Your task to perform on an android device: Clear the cart on ebay. Search for apple airpods pro on ebay, select the first entry, add it to the cart, then select checkout. Image 0: 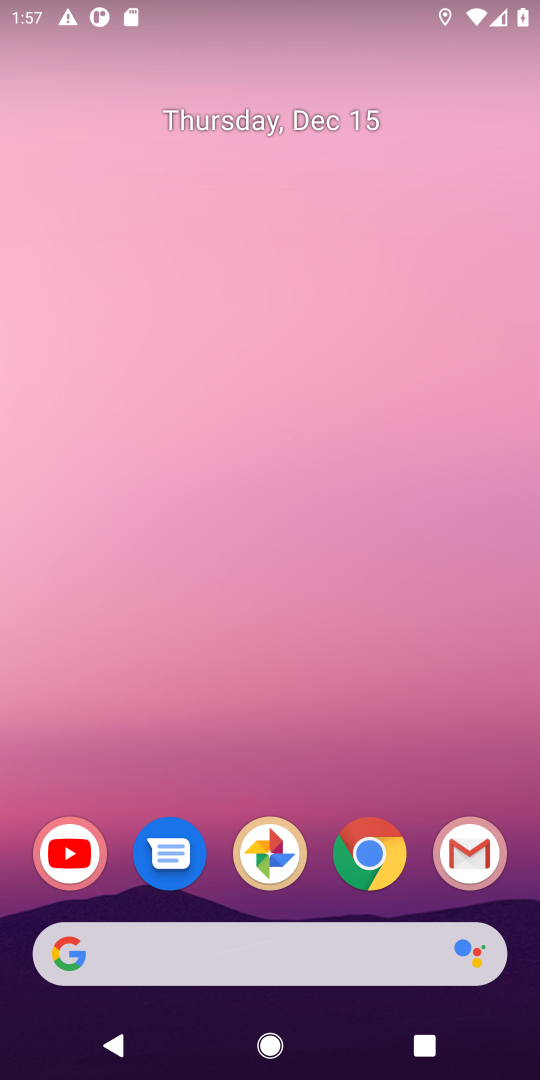
Step 0: drag from (251, 535) to (251, 230)
Your task to perform on an android device: Clear the cart on ebay. Search for apple airpods pro on ebay, select the first entry, add it to the cart, then select checkout. Image 1: 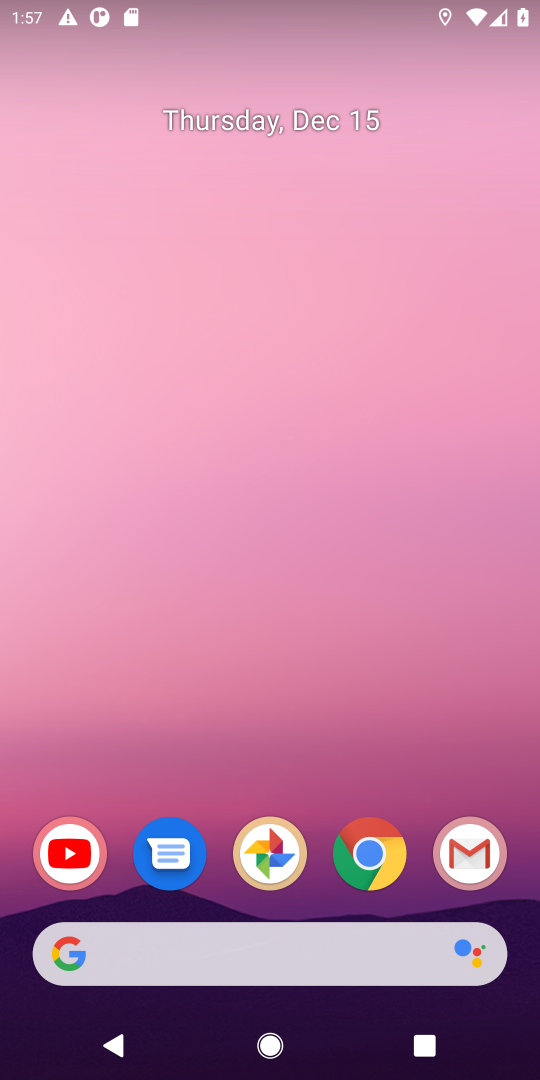
Step 1: drag from (145, 923) to (301, 137)
Your task to perform on an android device: Clear the cart on ebay. Search for apple airpods pro on ebay, select the first entry, add it to the cart, then select checkout. Image 2: 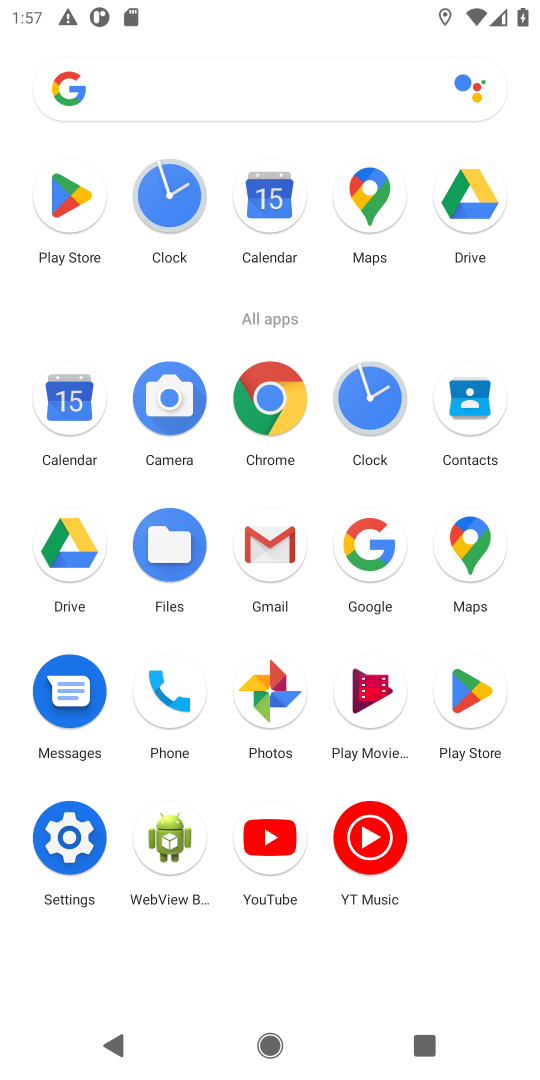
Step 2: click (372, 541)
Your task to perform on an android device: Clear the cart on ebay. Search for apple airpods pro on ebay, select the first entry, add it to the cart, then select checkout. Image 3: 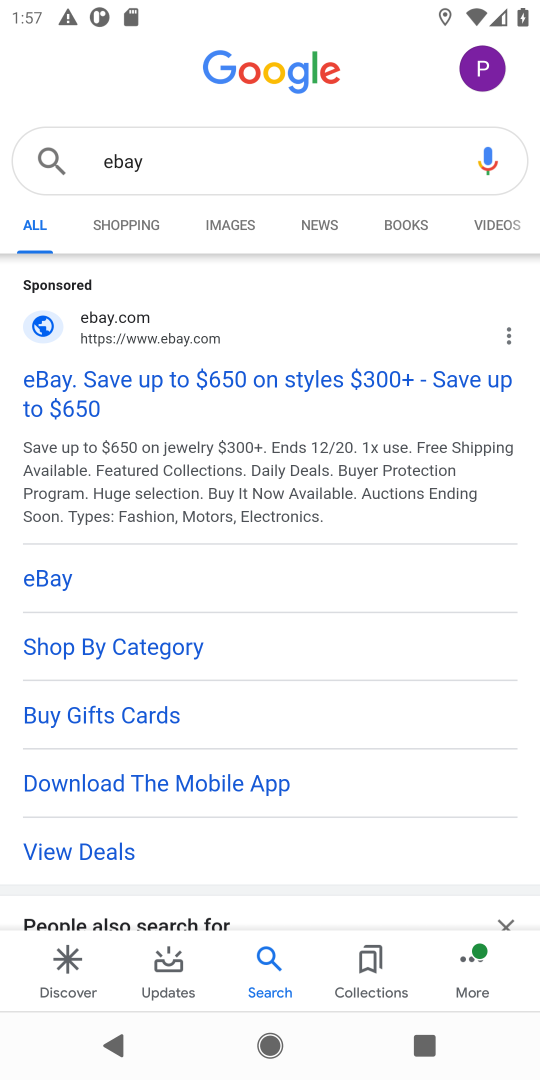
Step 3: click (62, 575)
Your task to perform on an android device: Clear the cart on ebay. Search for apple airpods pro on ebay, select the first entry, add it to the cart, then select checkout. Image 4: 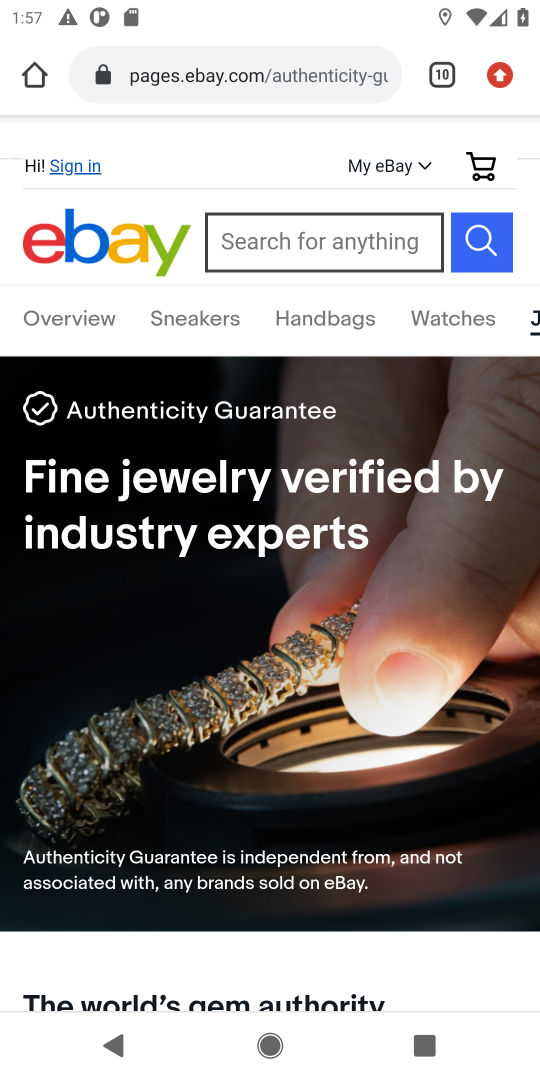
Step 4: click (234, 237)
Your task to perform on an android device: Clear the cart on ebay. Search for apple airpods pro on ebay, select the first entry, add it to the cart, then select checkout. Image 5: 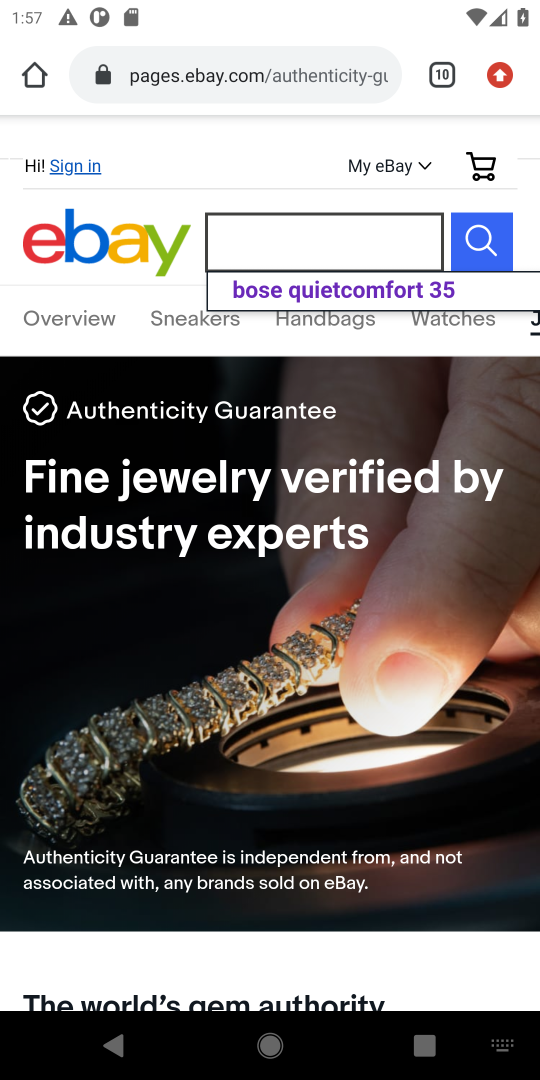
Step 5: type "apple airpods pro"
Your task to perform on an android device: Clear the cart on ebay. Search for apple airpods pro on ebay, select the first entry, add it to the cart, then select checkout. Image 6: 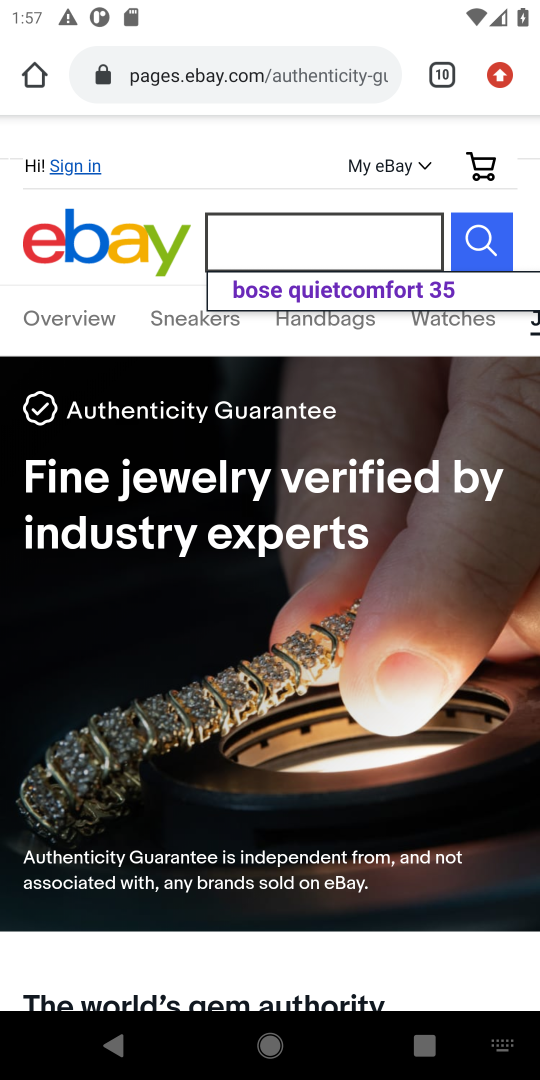
Step 6: click (476, 236)
Your task to perform on an android device: Clear the cart on ebay. Search for apple airpods pro on ebay, select the first entry, add it to the cart, then select checkout. Image 7: 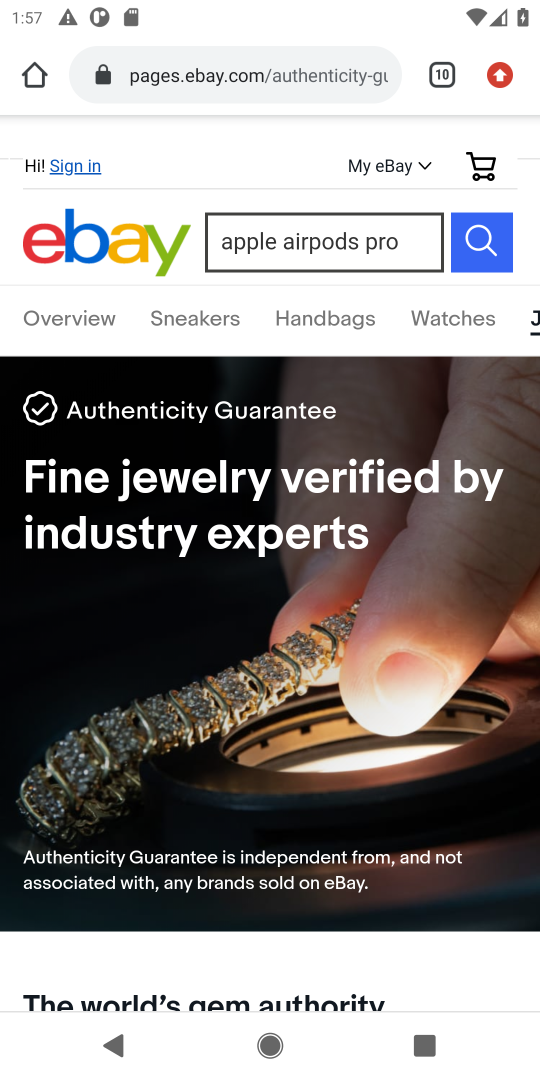
Step 7: click (476, 237)
Your task to perform on an android device: Clear the cart on ebay. Search for apple airpods pro on ebay, select the first entry, add it to the cart, then select checkout. Image 8: 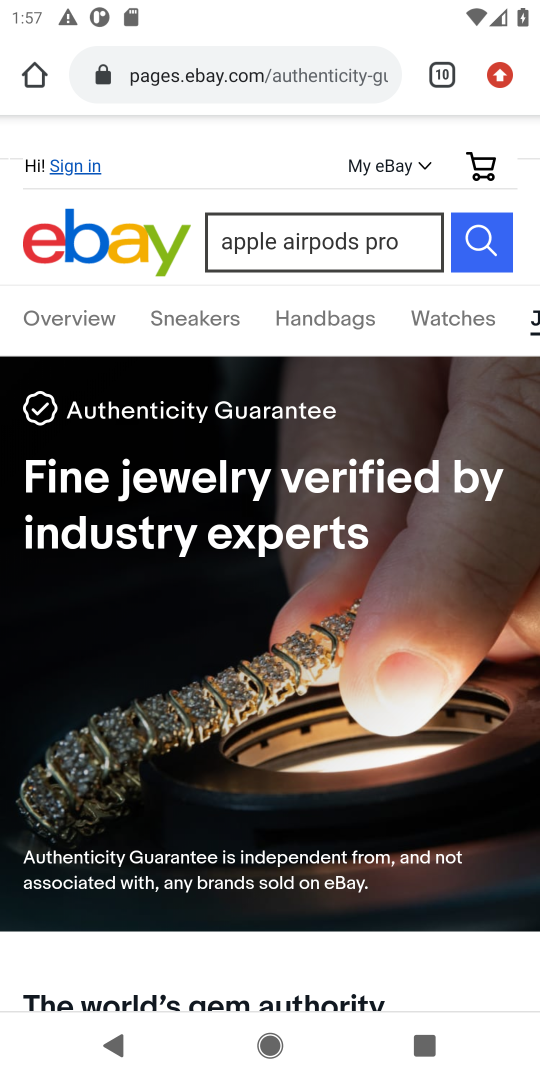
Step 8: click (490, 238)
Your task to perform on an android device: Clear the cart on ebay. Search for apple airpods pro on ebay, select the first entry, add it to the cart, then select checkout. Image 9: 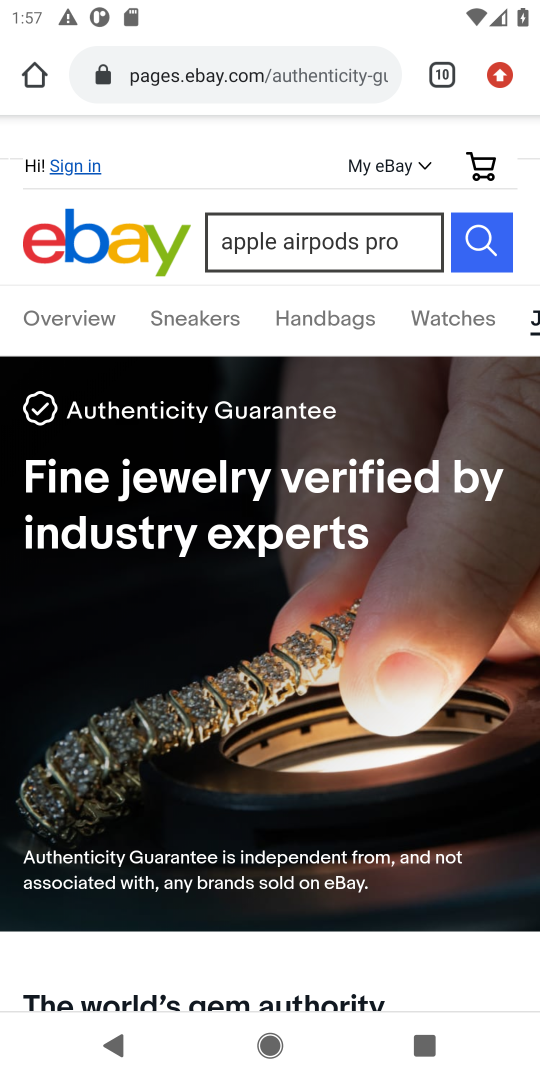
Step 9: task complete